Your task to perform on an android device: toggle improve location accuracy Image 0: 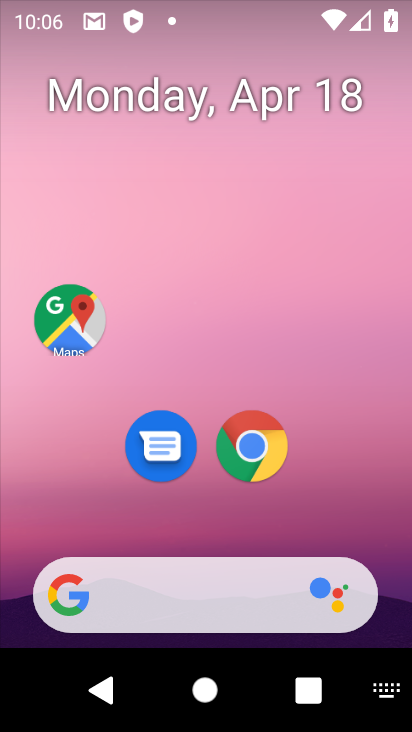
Step 0: drag from (377, 438) to (382, 60)
Your task to perform on an android device: toggle improve location accuracy Image 1: 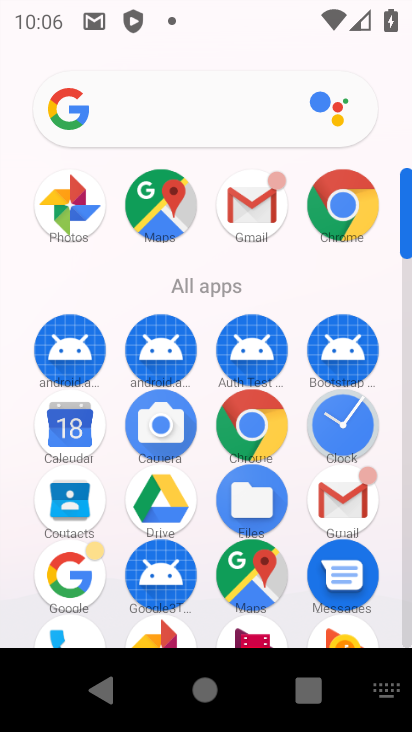
Step 1: drag from (395, 426) to (393, 182)
Your task to perform on an android device: toggle improve location accuracy Image 2: 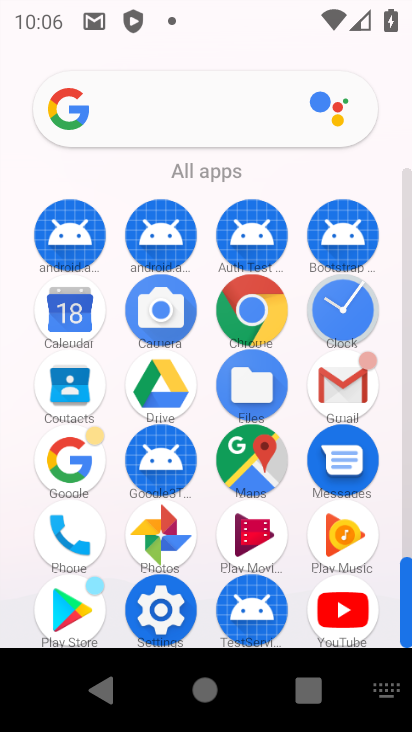
Step 2: click (152, 616)
Your task to perform on an android device: toggle improve location accuracy Image 3: 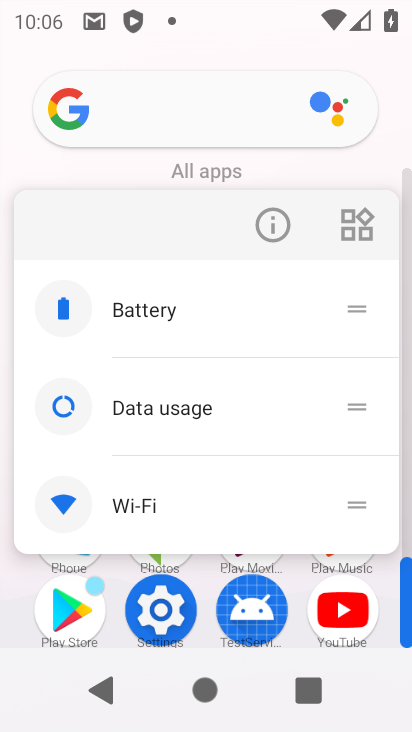
Step 3: click (153, 617)
Your task to perform on an android device: toggle improve location accuracy Image 4: 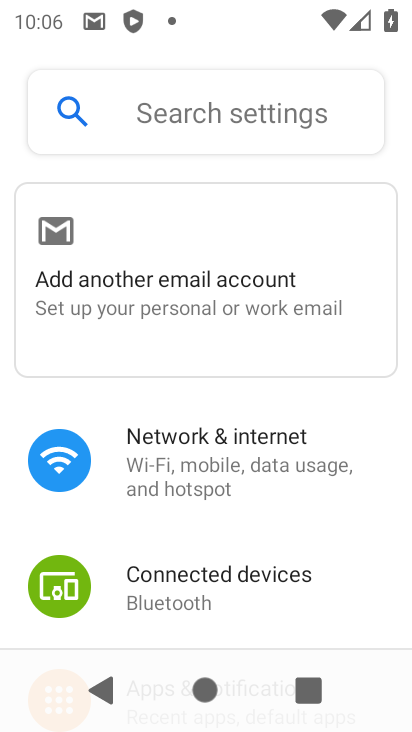
Step 4: drag from (378, 565) to (383, 403)
Your task to perform on an android device: toggle improve location accuracy Image 5: 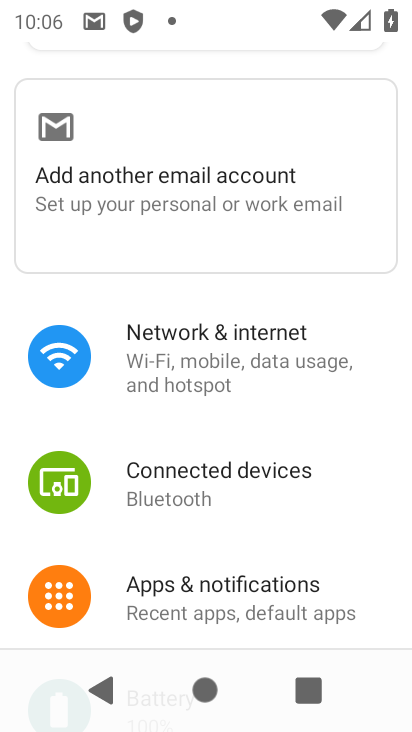
Step 5: drag from (385, 571) to (378, 393)
Your task to perform on an android device: toggle improve location accuracy Image 6: 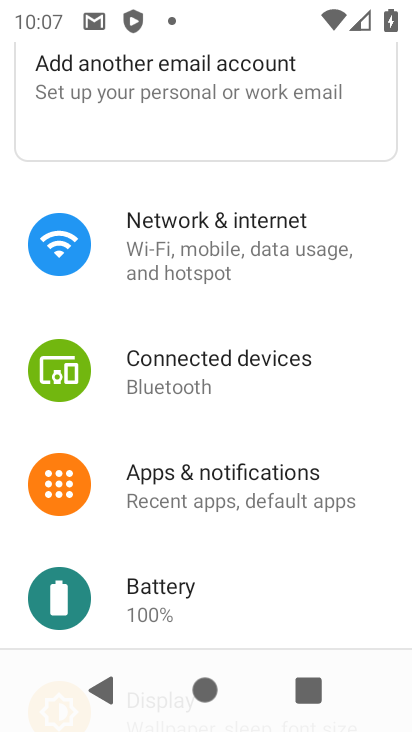
Step 6: drag from (391, 580) to (376, 420)
Your task to perform on an android device: toggle improve location accuracy Image 7: 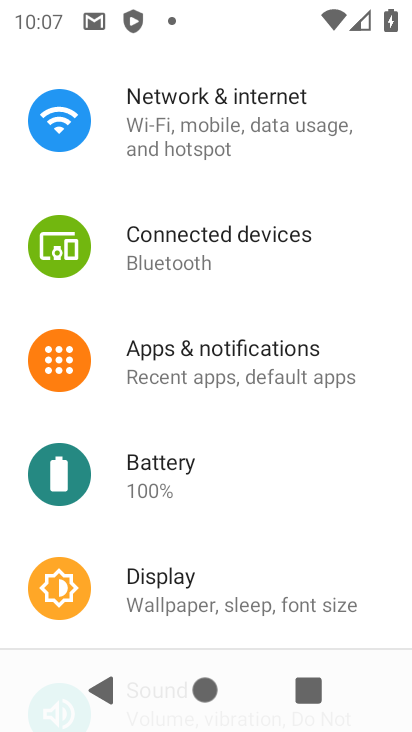
Step 7: drag from (389, 597) to (376, 441)
Your task to perform on an android device: toggle improve location accuracy Image 8: 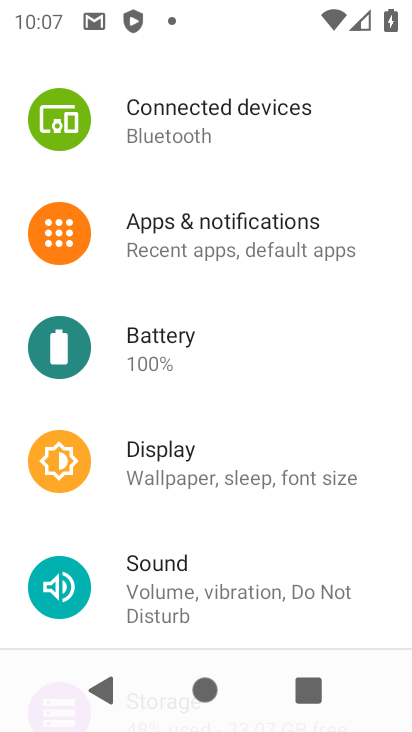
Step 8: drag from (390, 556) to (401, 376)
Your task to perform on an android device: toggle improve location accuracy Image 9: 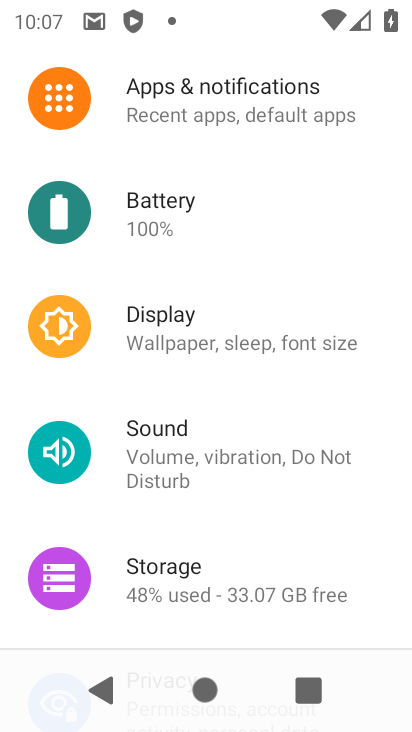
Step 9: drag from (388, 534) to (390, 385)
Your task to perform on an android device: toggle improve location accuracy Image 10: 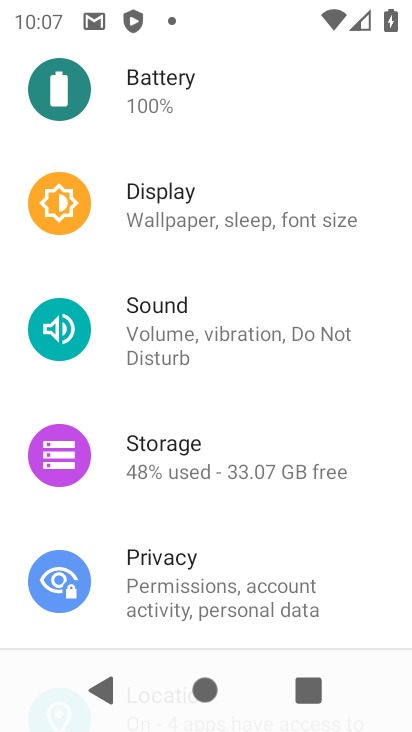
Step 10: drag from (390, 541) to (382, 390)
Your task to perform on an android device: toggle improve location accuracy Image 11: 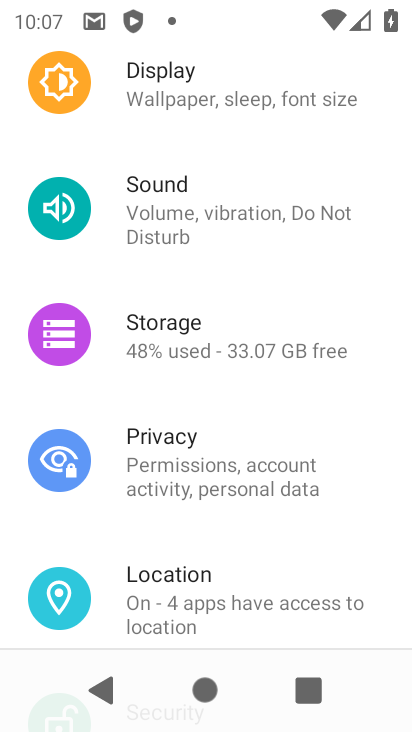
Step 11: drag from (389, 598) to (369, 429)
Your task to perform on an android device: toggle improve location accuracy Image 12: 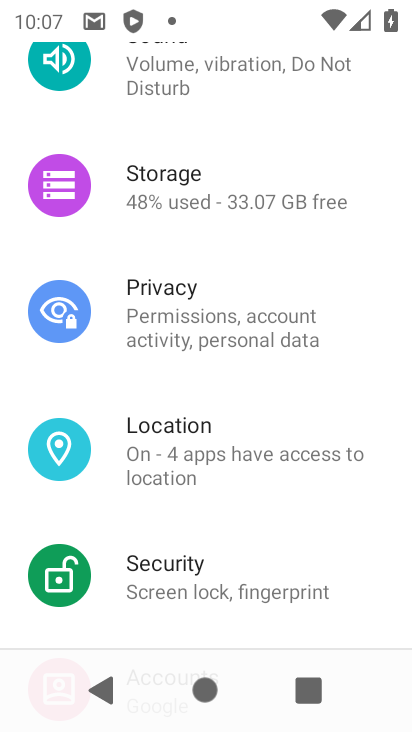
Step 12: click (288, 451)
Your task to perform on an android device: toggle improve location accuracy Image 13: 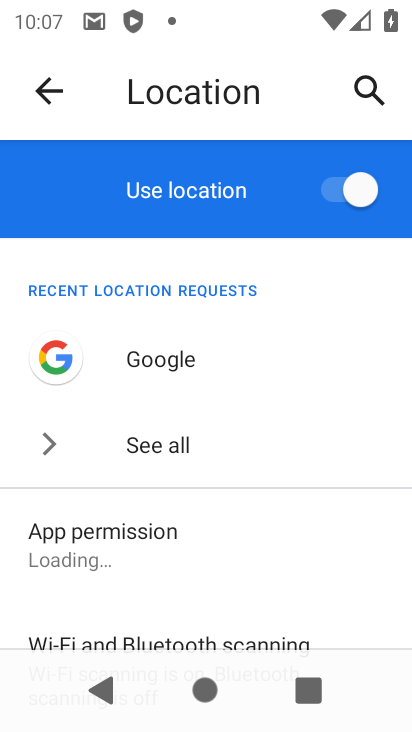
Step 13: drag from (340, 539) to (354, 335)
Your task to perform on an android device: toggle improve location accuracy Image 14: 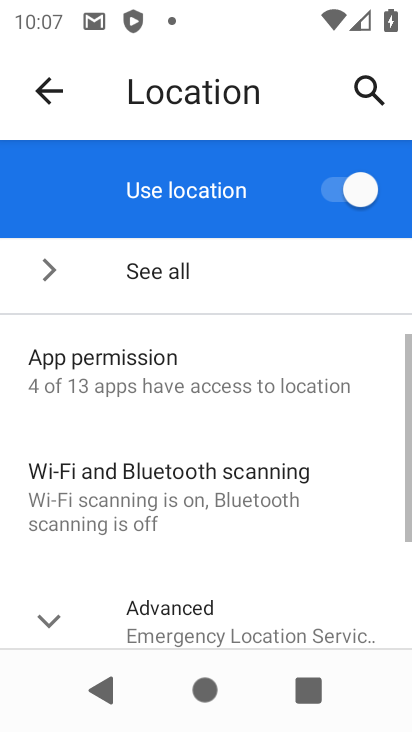
Step 14: drag from (360, 543) to (365, 345)
Your task to perform on an android device: toggle improve location accuracy Image 15: 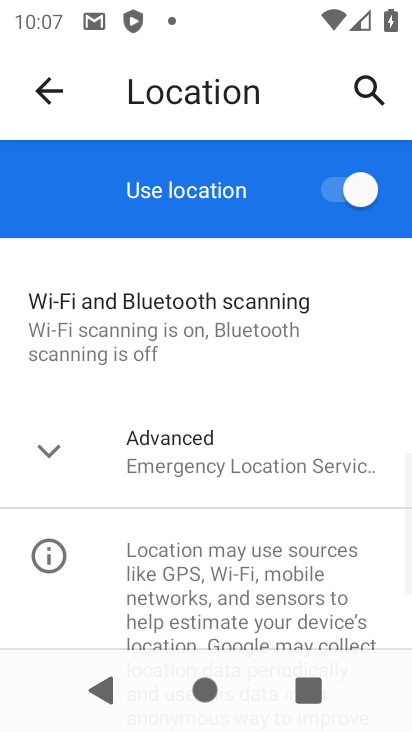
Step 15: click (304, 462)
Your task to perform on an android device: toggle improve location accuracy Image 16: 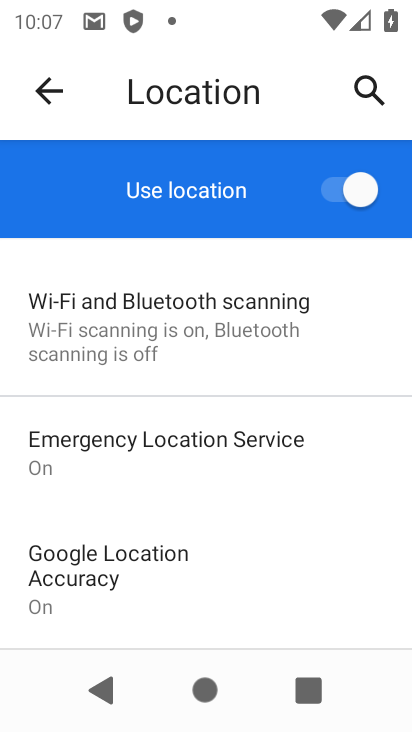
Step 16: drag from (340, 570) to (347, 350)
Your task to perform on an android device: toggle improve location accuracy Image 17: 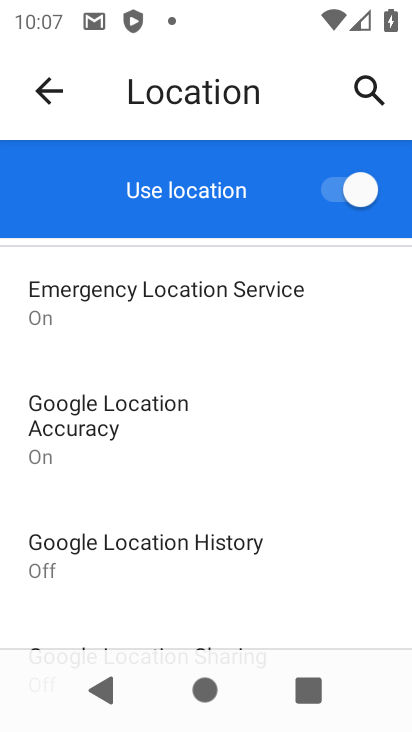
Step 17: click (68, 422)
Your task to perform on an android device: toggle improve location accuracy Image 18: 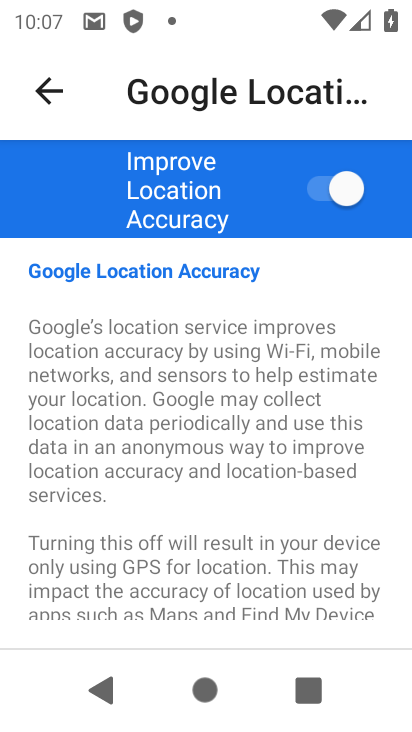
Step 18: click (336, 183)
Your task to perform on an android device: toggle improve location accuracy Image 19: 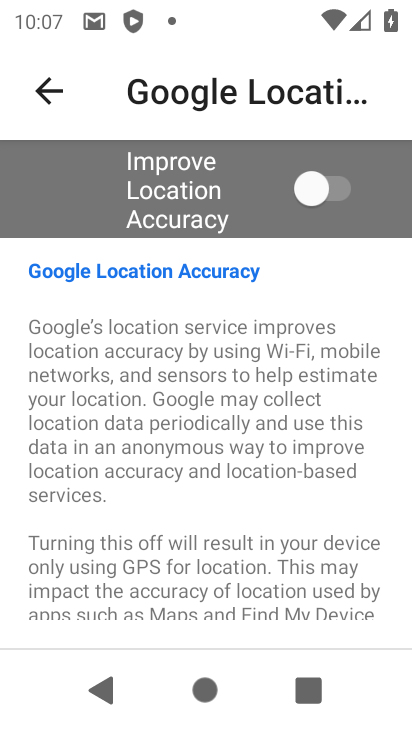
Step 19: task complete